Your task to perform on an android device: Open Youtube and go to "Your channel" Image 0: 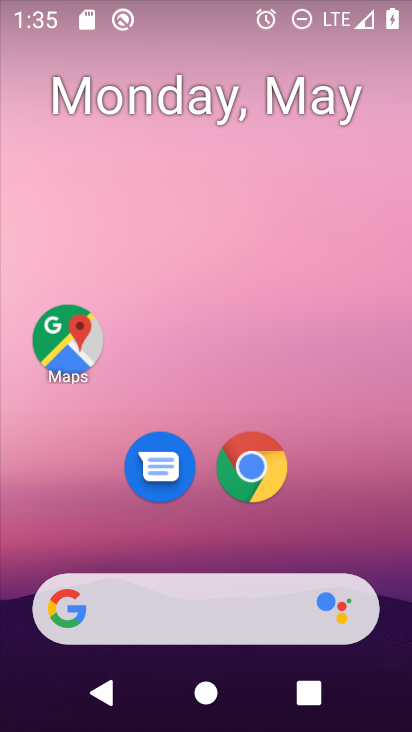
Step 0: drag from (364, 501) to (273, 21)
Your task to perform on an android device: Open Youtube and go to "Your channel" Image 1: 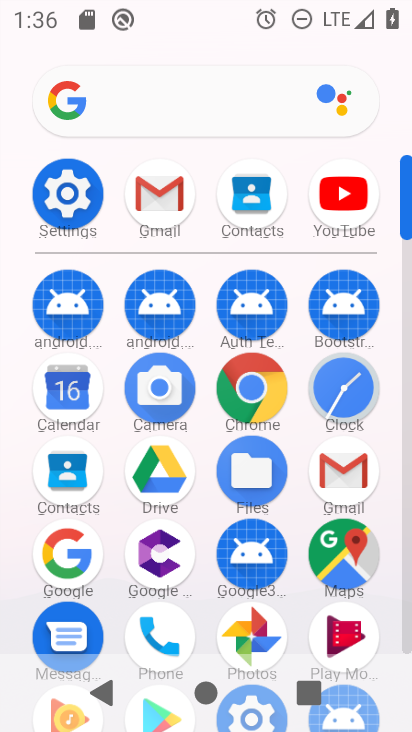
Step 1: click (328, 202)
Your task to perform on an android device: Open Youtube and go to "Your channel" Image 2: 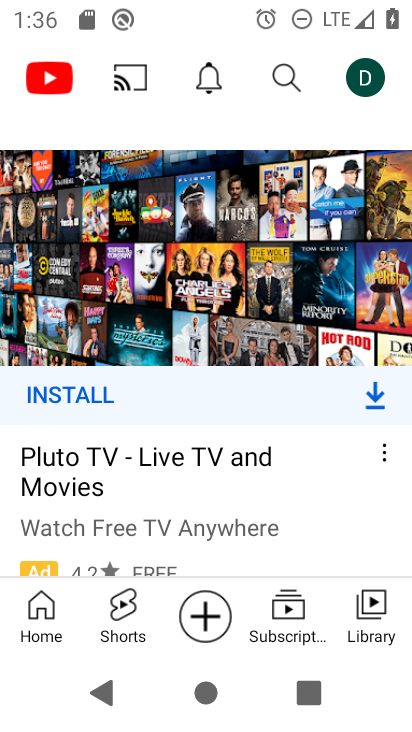
Step 2: click (354, 78)
Your task to perform on an android device: Open Youtube and go to "Your channel" Image 3: 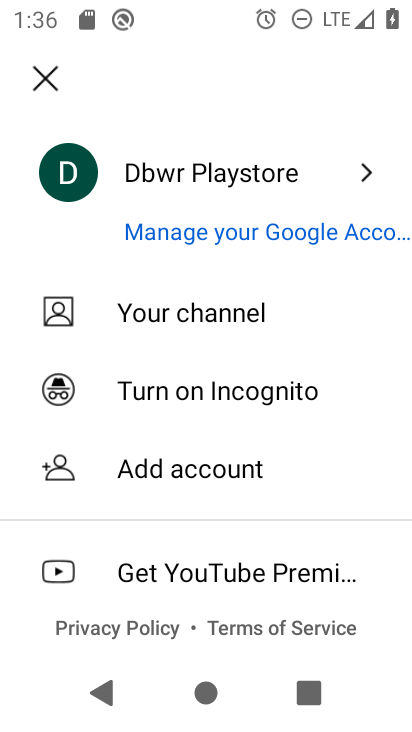
Step 3: click (137, 313)
Your task to perform on an android device: Open Youtube and go to "Your channel" Image 4: 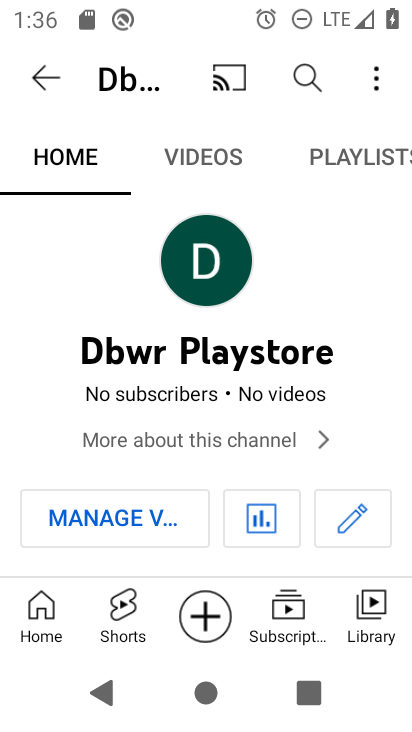
Step 4: task complete